Your task to perform on an android device: check storage Image 0: 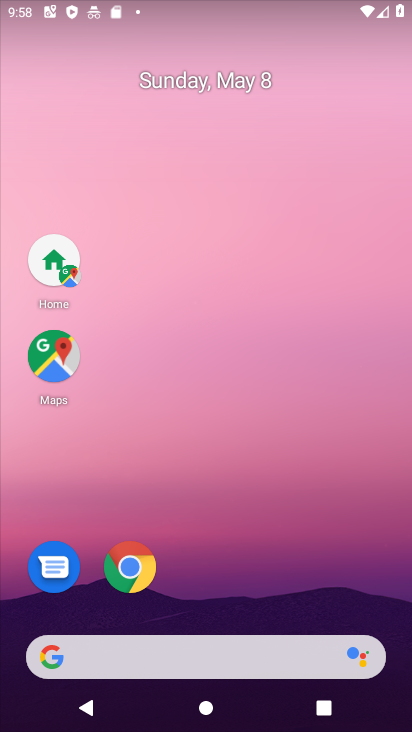
Step 0: drag from (372, 653) to (247, 134)
Your task to perform on an android device: check storage Image 1: 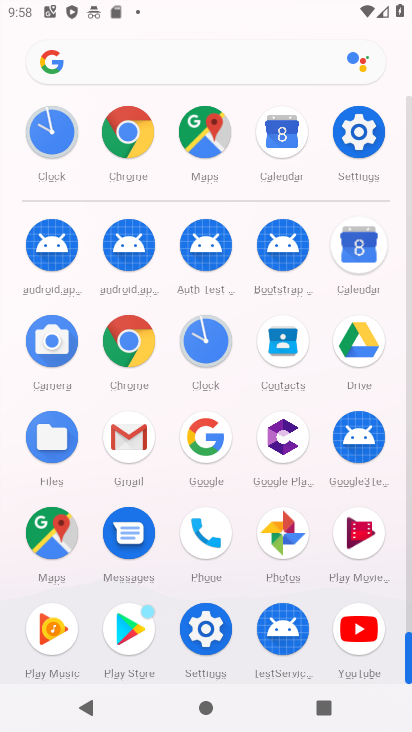
Step 1: click (355, 126)
Your task to perform on an android device: check storage Image 2: 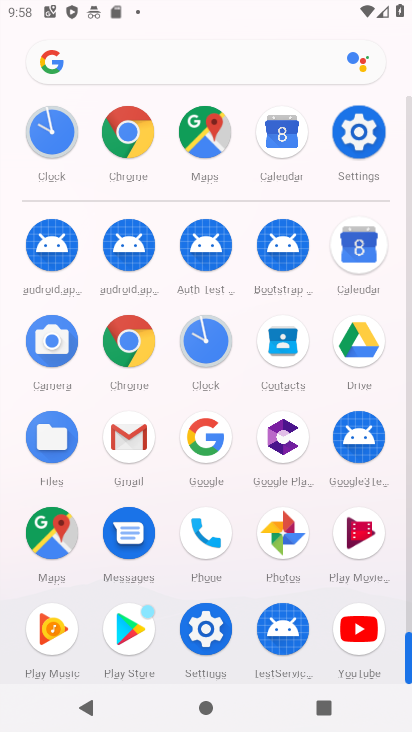
Step 2: click (355, 126)
Your task to perform on an android device: check storage Image 3: 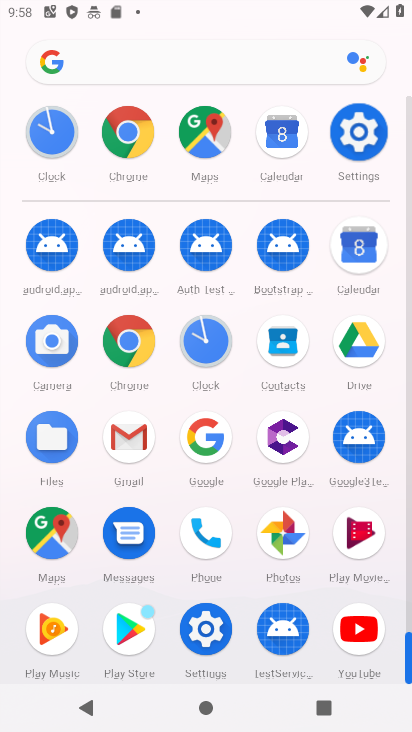
Step 3: click (355, 127)
Your task to perform on an android device: check storage Image 4: 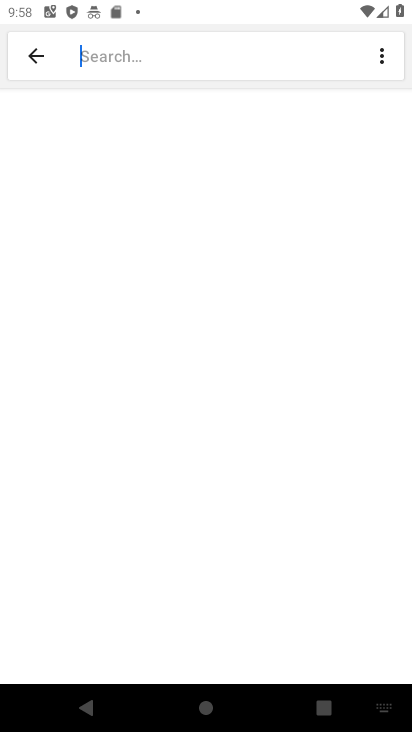
Step 4: click (27, 50)
Your task to perform on an android device: check storage Image 5: 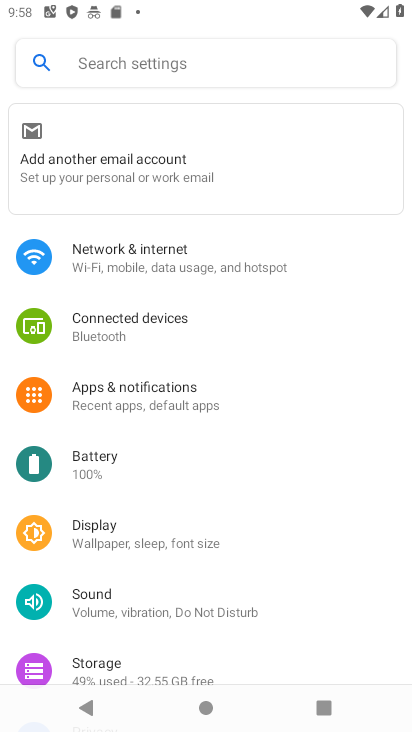
Step 5: click (88, 665)
Your task to perform on an android device: check storage Image 6: 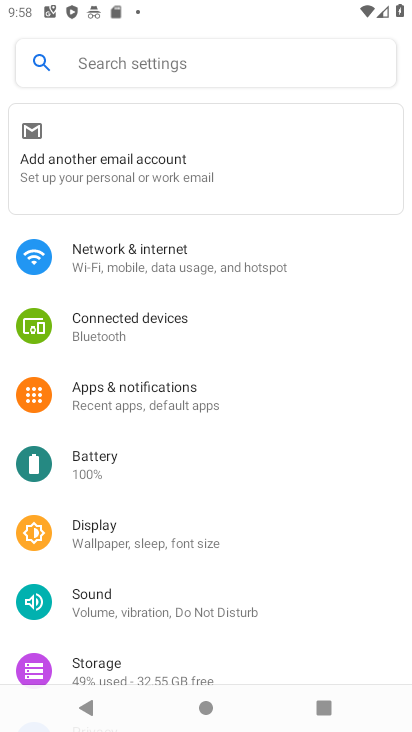
Step 6: click (89, 663)
Your task to perform on an android device: check storage Image 7: 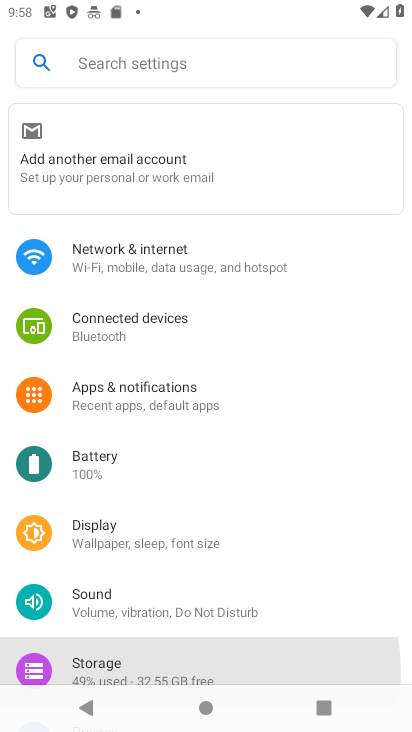
Step 7: click (92, 649)
Your task to perform on an android device: check storage Image 8: 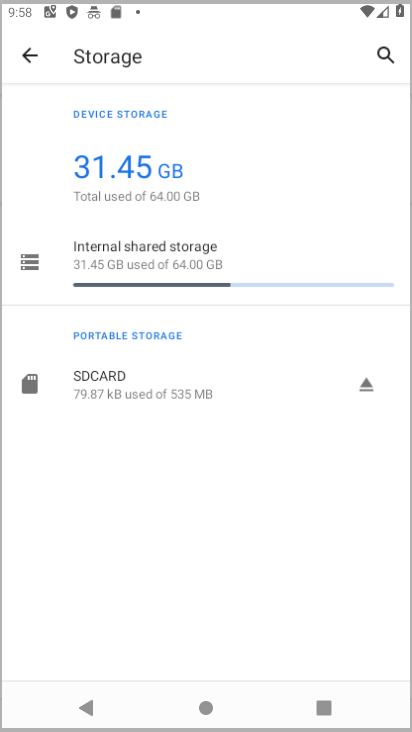
Step 8: click (95, 642)
Your task to perform on an android device: check storage Image 9: 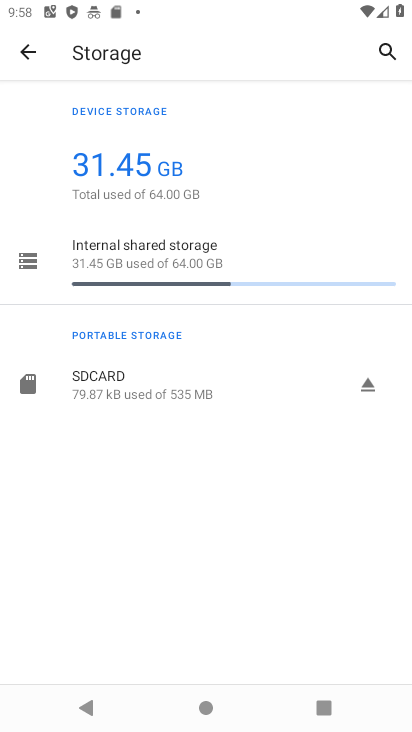
Step 9: task complete